Your task to perform on an android device: Go to location settings Image 0: 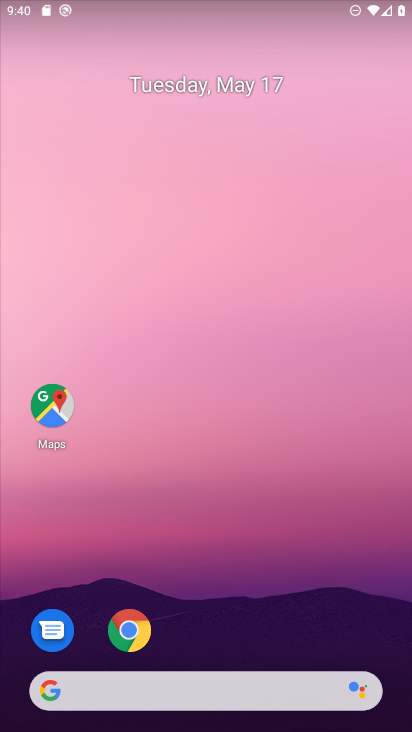
Step 0: drag from (336, 612) to (344, 143)
Your task to perform on an android device: Go to location settings Image 1: 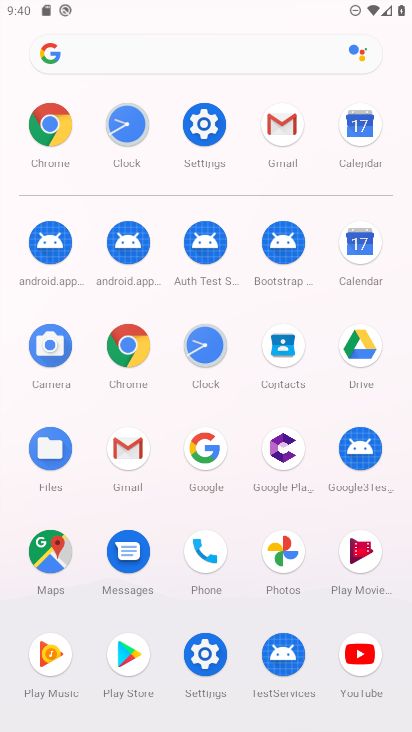
Step 1: click (207, 141)
Your task to perform on an android device: Go to location settings Image 2: 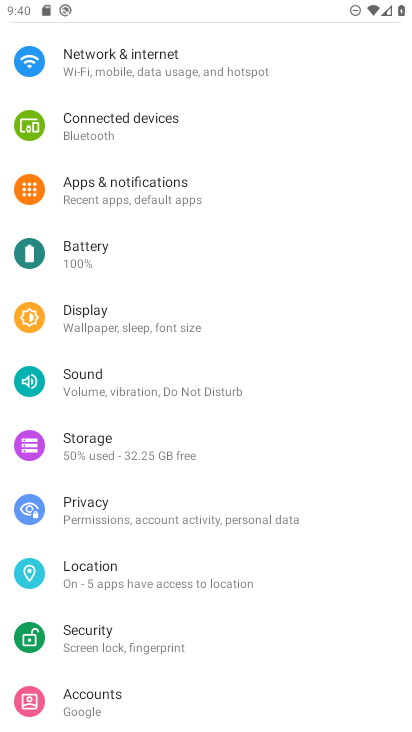
Step 2: drag from (351, 603) to (359, 401)
Your task to perform on an android device: Go to location settings Image 3: 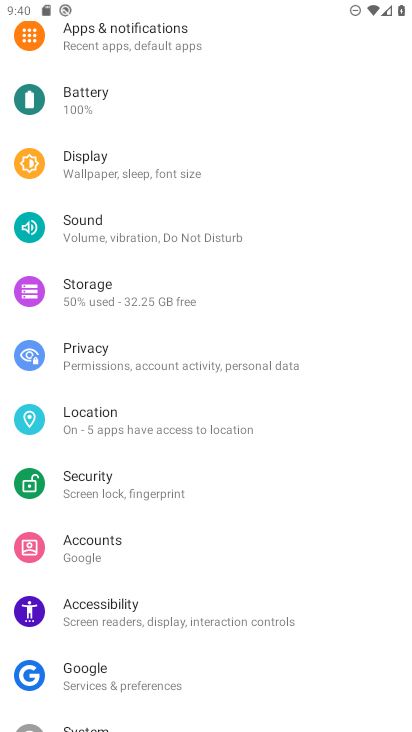
Step 3: drag from (345, 651) to (359, 452)
Your task to perform on an android device: Go to location settings Image 4: 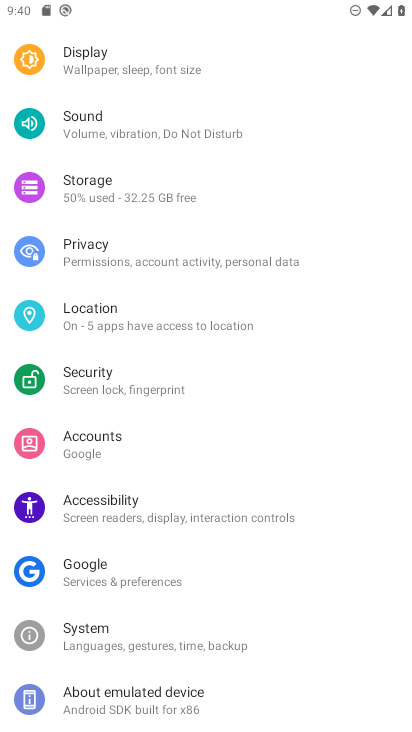
Step 4: drag from (344, 319) to (348, 422)
Your task to perform on an android device: Go to location settings Image 5: 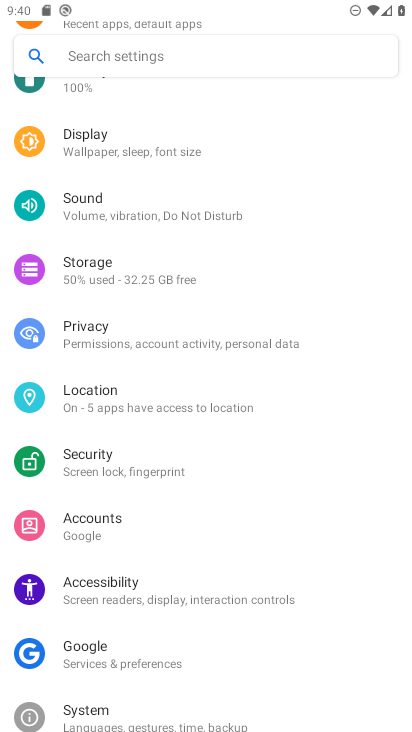
Step 5: drag from (349, 222) to (348, 377)
Your task to perform on an android device: Go to location settings Image 6: 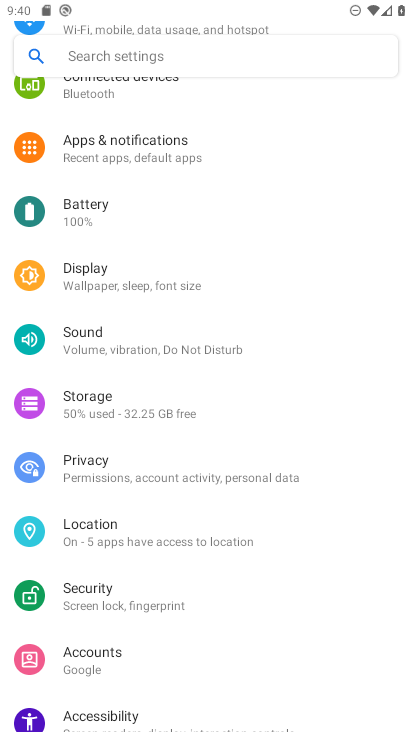
Step 6: drag from (346, 193) to (345, 387)
Your task to perform on an android device: Go to location settings Image 7: 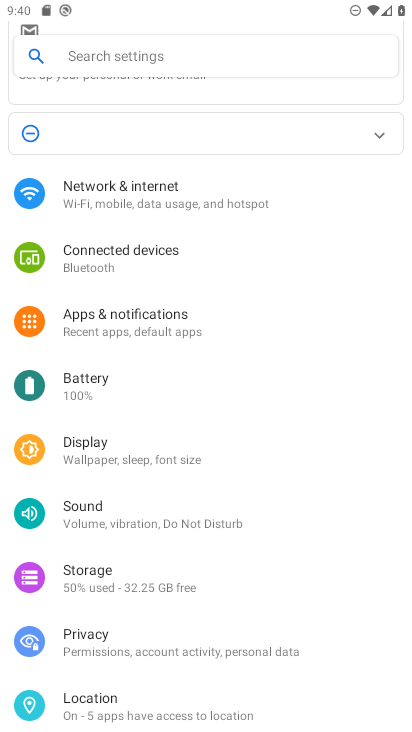
Step 7: drag from (348, 526) to (333, 356)
Your task to perform on an android device: Go to location settings Image 8: 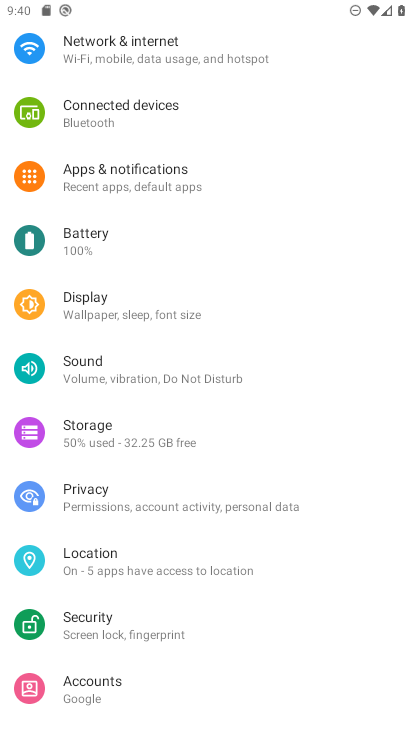
Step 8: drag from (319, 586) to (333, 394)
Your task to perform on an android device: Go to location settings Image 9: 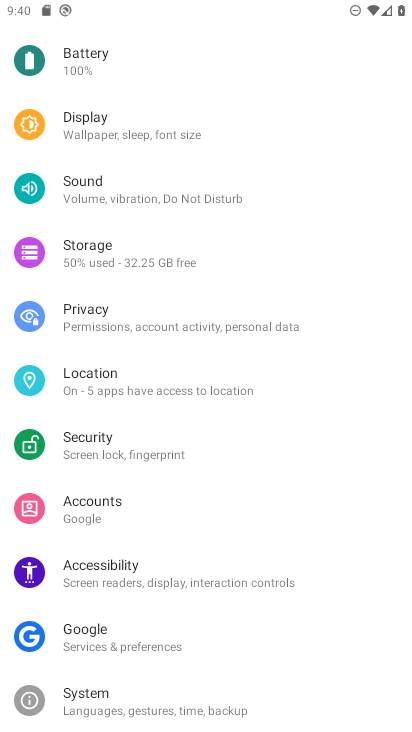
Step 9: click (207, 391)
Your task to perform on an android device: Go to location settings Image 10: 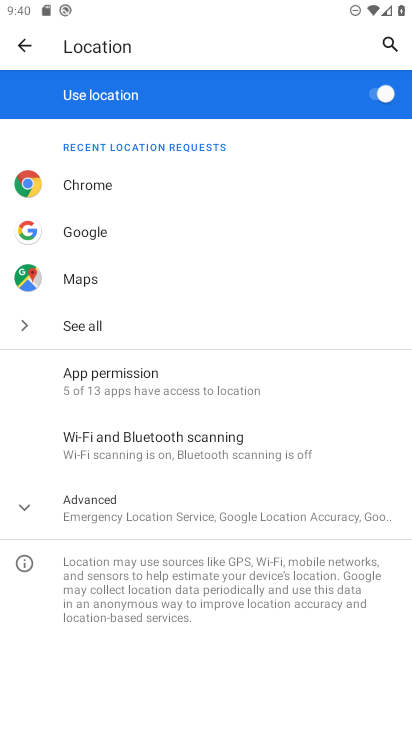
Step 10: task complete